Your task to perform on an android device: turn on airplane mode Image 0: 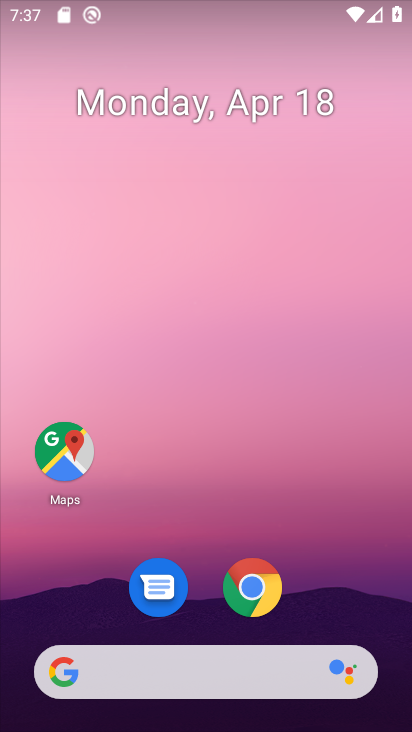
Step 0: drag from (283, 12) to (240, 560)
Your task to perform on an android device: turn on airplane mode Image 1: 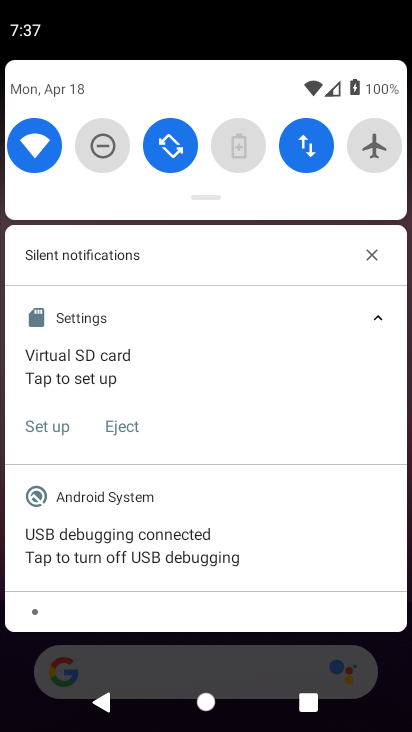
Step 1: click (387, 138)
Your task to perform on an android device: turn on airplane mode Image 2: 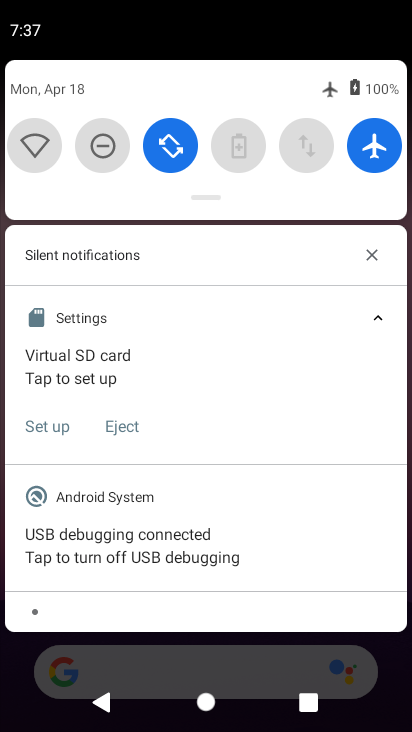
Step 2: task complete